Your task to perform on an android device: Open calendar and show me the third week of next month Image 0: 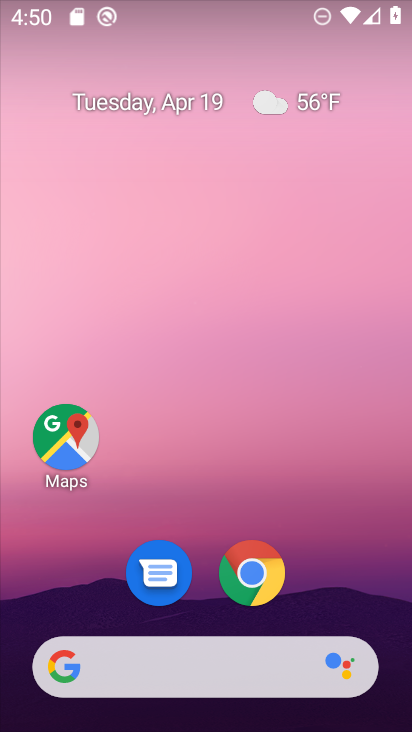
Step 0: drag from (371, 596) to (407, 12)
Your task to perform on an android device: Open calendar and show me the third week of next month Image 1: 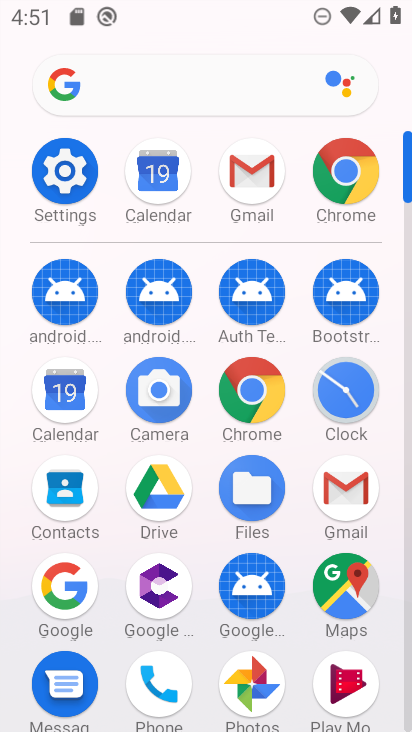
Step 1: click (150, 180)
Your task to perform on an android device: Open calendar and show me the third week of next month Image 2: 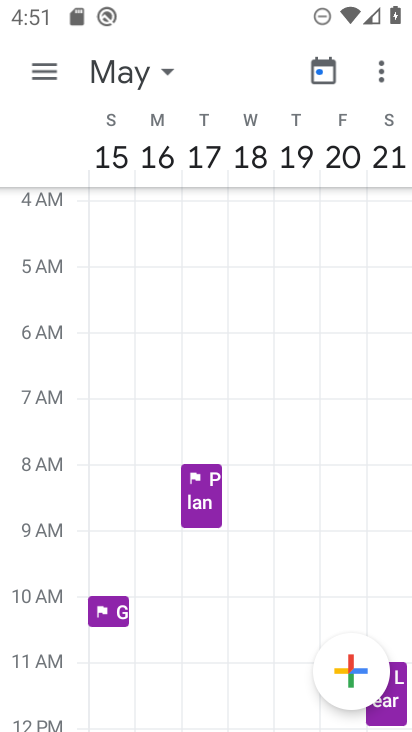
Step 2: task complete